Your task to perform on an android device: see sites visited before in the chrome app Image 0: 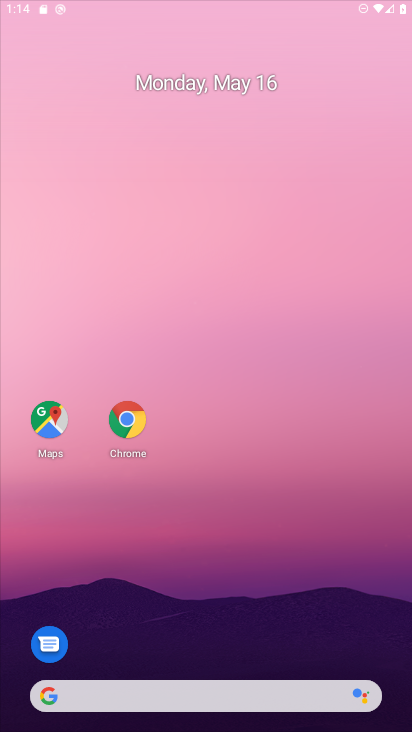
Step 0: drag from (204, 47) to (266, 2)
Your task to perform on an android device: see sites visited before in the chrome app Image 1: 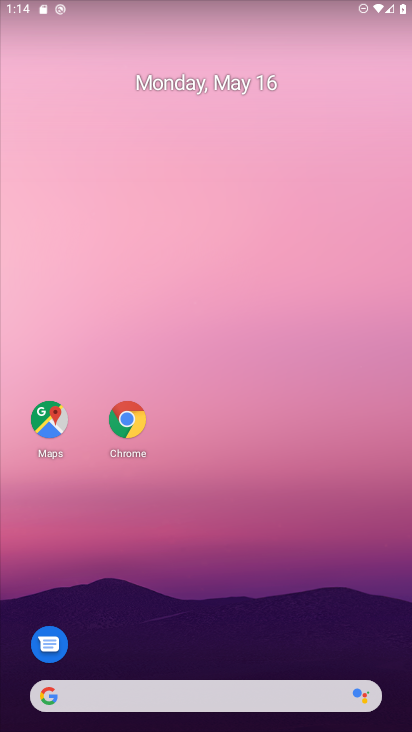
Step 1: drag from (244, 649) to (300, 95)
Your task to perform on an android device: see sites visited before in the chrome app Image 2: 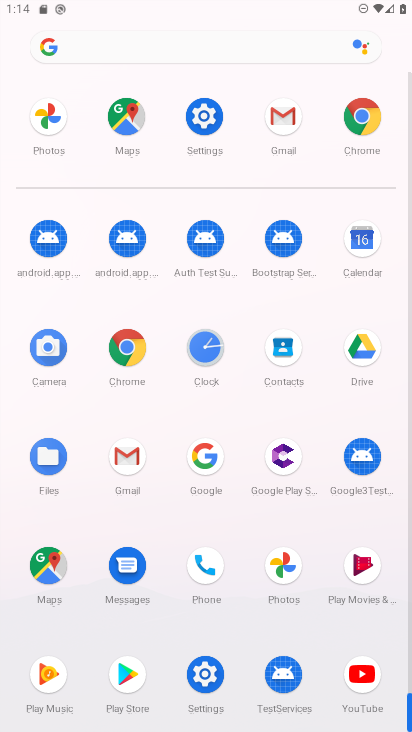
Step 2: click (124, 351)
Your task to perform on an android device: see sites visited before in the chrome app Image 3: 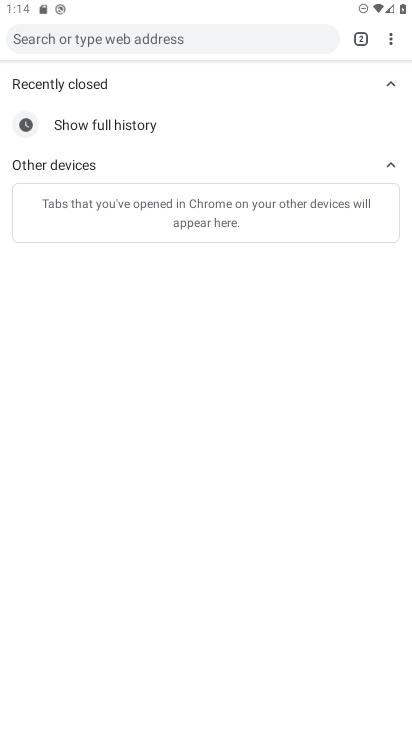
Step 3: click (394, 44)
Your task to perform on an android device: see sites visited before in the chrome app Image 4: 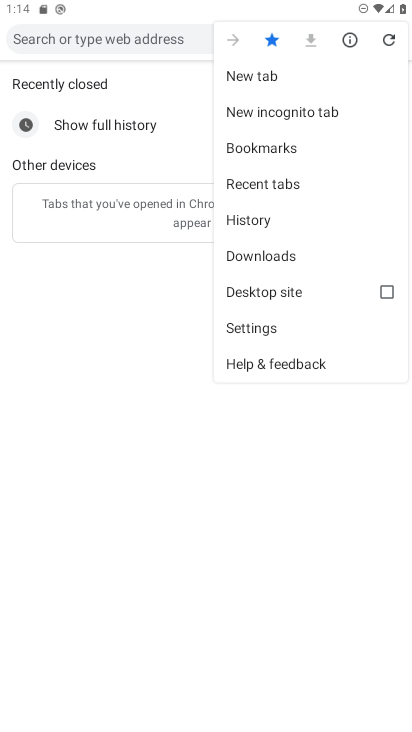
Step 4: click (274, 334)
Your task to perform on an android device: see sites visited before in the chrome app Image 5: 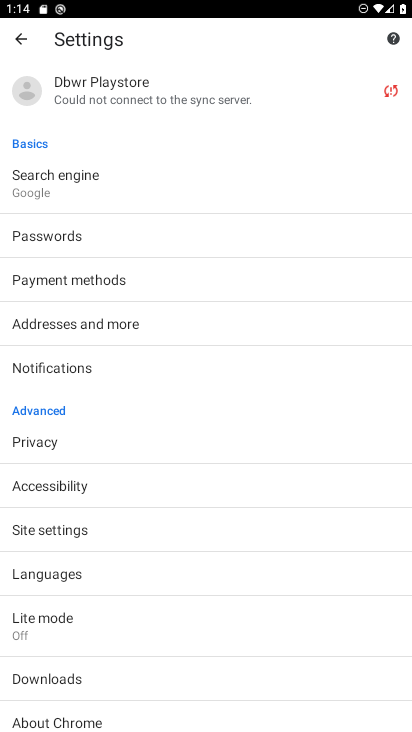
Step 5: click (26, 47)
Your task to perform on an android device: see sites visited before in the chrome app Image 6: 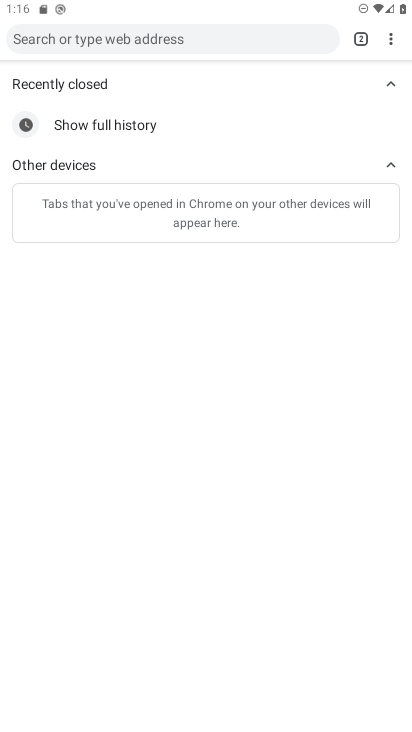
Step 6: click (385, 37)
Your task to perform on an android device: see sites visited before in the chrome app Image 7: 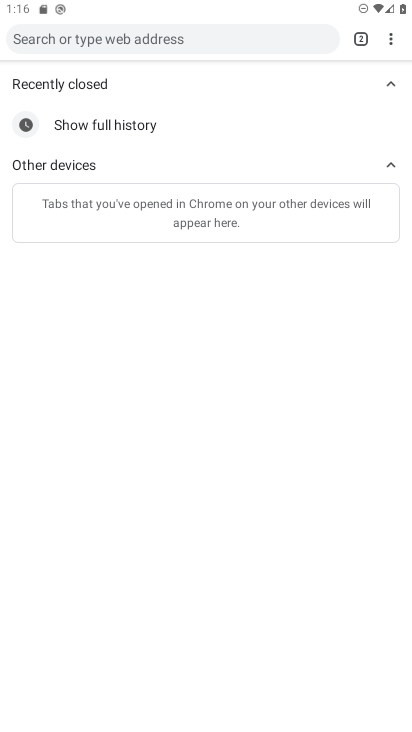
Step 7: task complete